Your task to perform on an android device: Show me the alarms in the clock app Image 0: 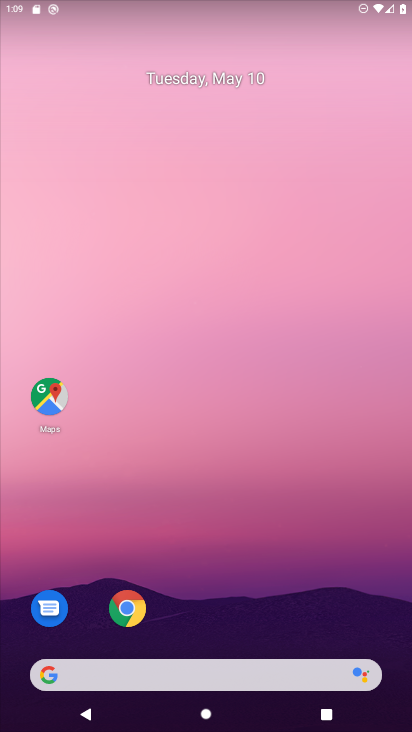
Step 0: click (232, 521)
Your task to perform on an android device: Show me the alarms in the clock app Image 1: 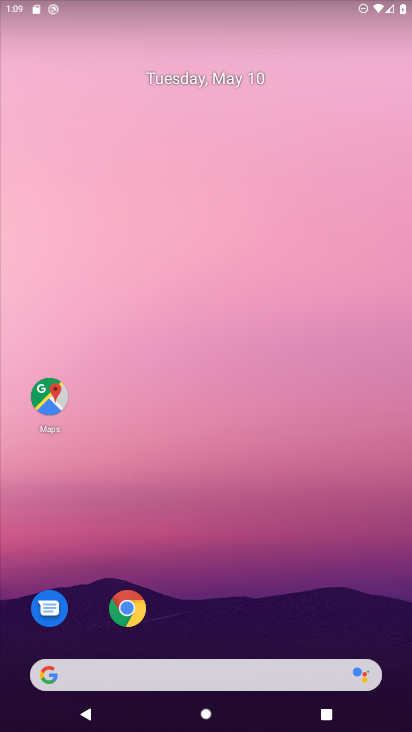
Step 1: press home button
Your task to perform on an android device: Show me the alarms in the clock app Image 2: 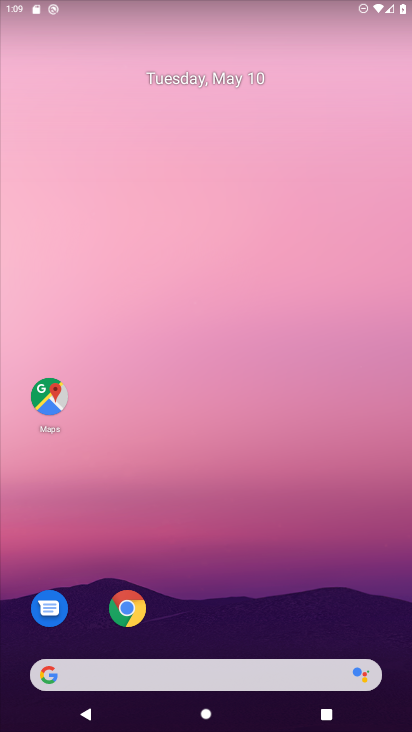
Step 2: drag from (284, 588) to (372, 261)
Your task to perform on an android device: Show me the alarms in the clock app Image 3: 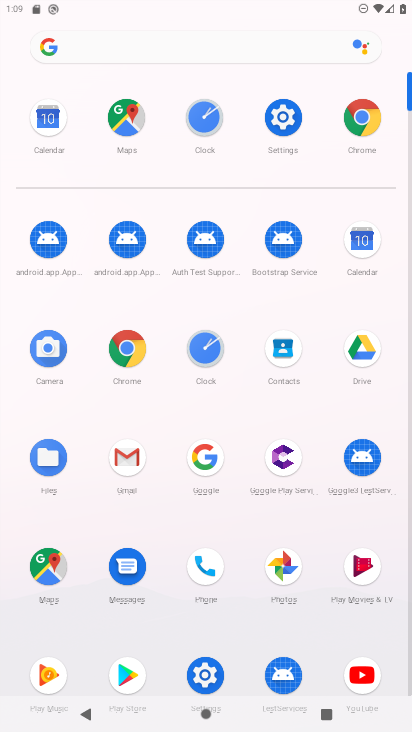
Step 3: click (197, 354)
Your task to perform on an android device: Show me the alarms in the clock app Image 4: 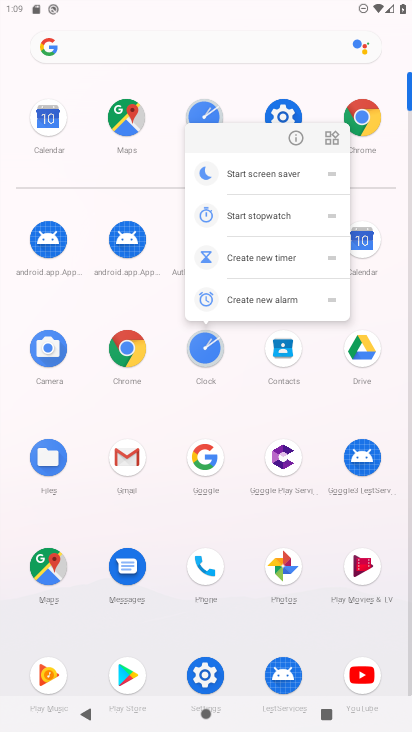
Step 4: click (198, 356)
Your task to perform on an android device: Show me the alarms in the clock app Image 5: 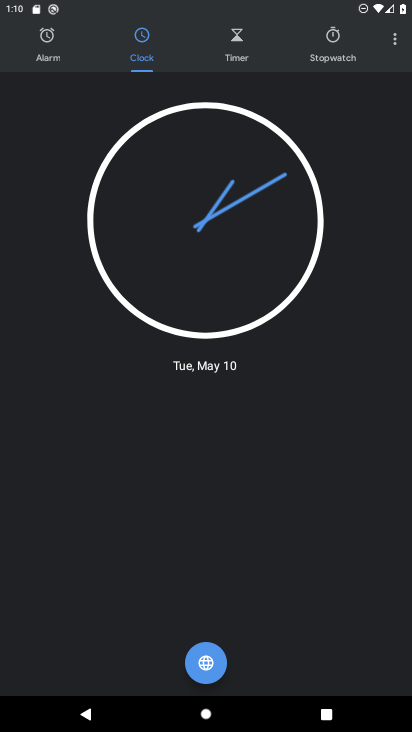
Step 5: click (53, 51)
Your task to perform on an android device: Show me the alarms in the clock app Image 6: 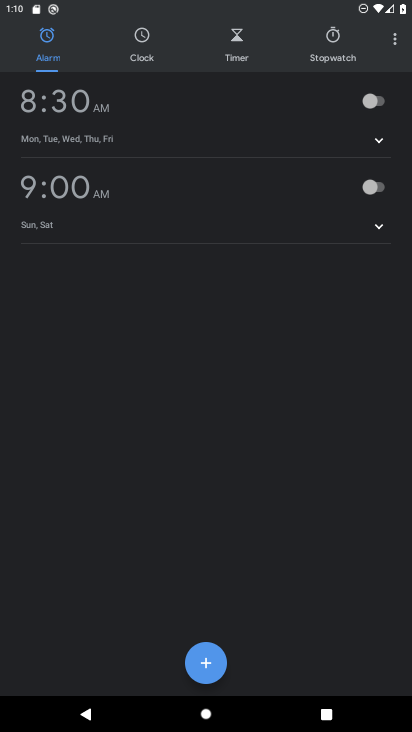
Step 6: task complete